Your task to perform on an android device: Go to accessibility settings Image 0: 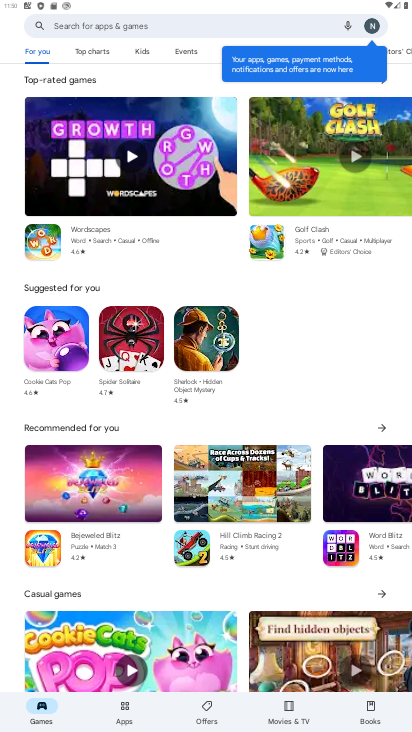
Step 0: press home button
Your task to perform on an android device: Go to accessibility settings Image 1: 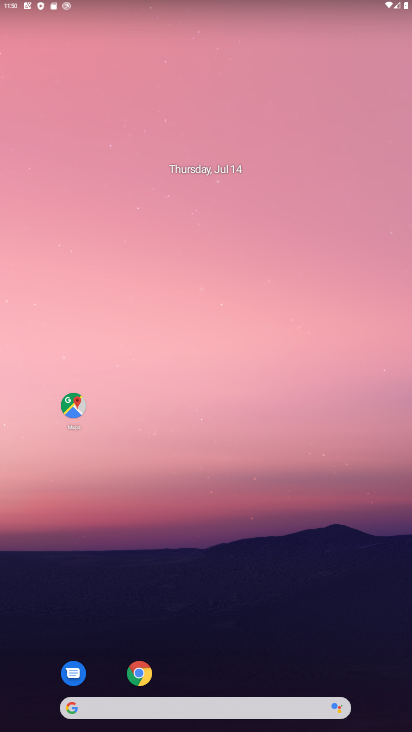
Step 1: drag from (327, 651) to (274, 151)
Your task to perform on an android device: Go to accessibility settings Image 2: 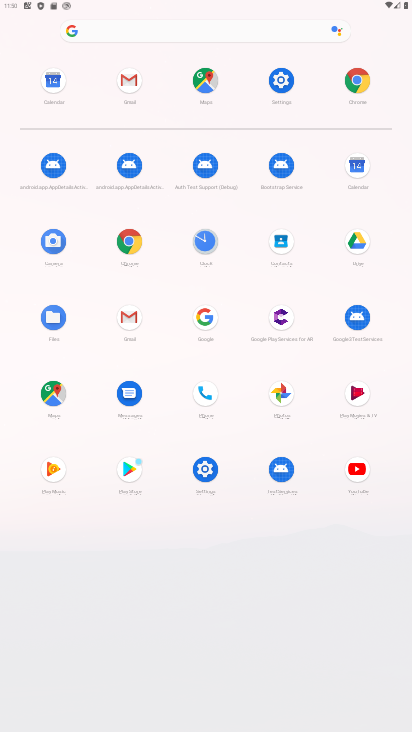
Step 2: click (203, 477)
Your task to perform on an android device: Go to accessibility settings Image 3: 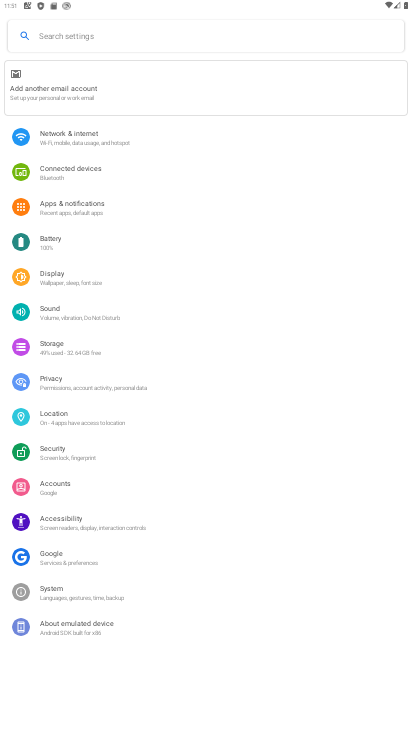
Step 3: click (137, 525)
Your task to perform on an android device: Go to accessibility settings Image 4: 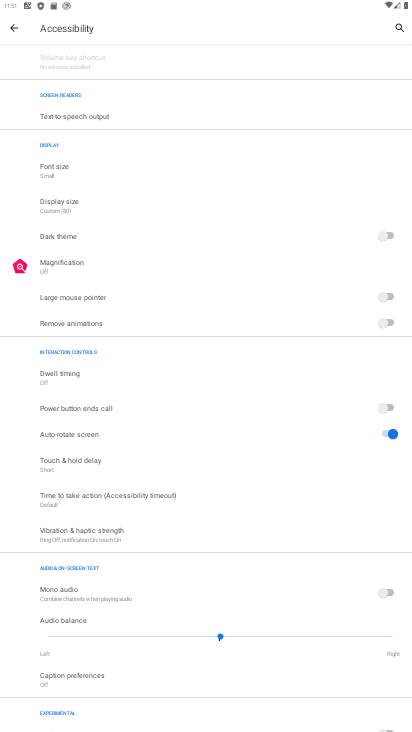
Step 4: task complete